Your task to perform on an android device: turn vacation reply on in the gmail app Image 0: 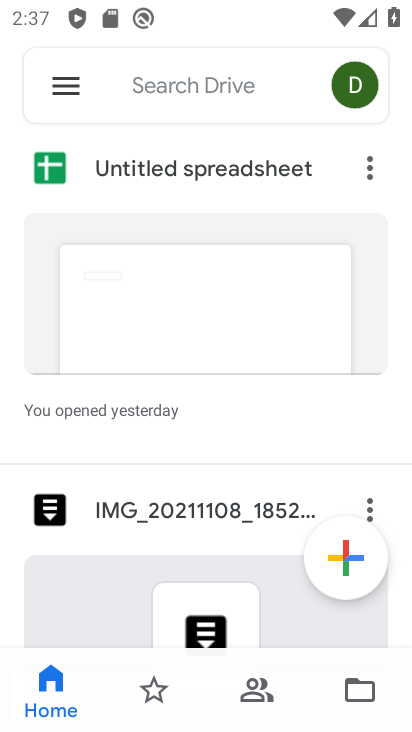
Step 0: press back button
Your task to perform on an android device: turn vacation reply on in the gmail app Image 1: 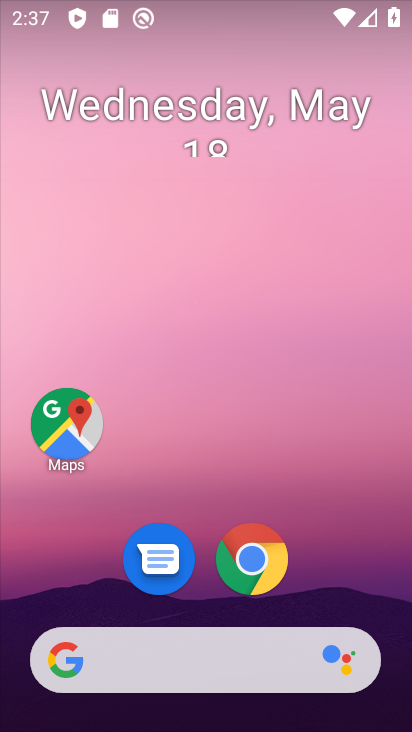
Step 1: drag from (209, 601) to (248, 175)
Your task to perform on an android device: turn vacation reply on in the gmail app Image 2: 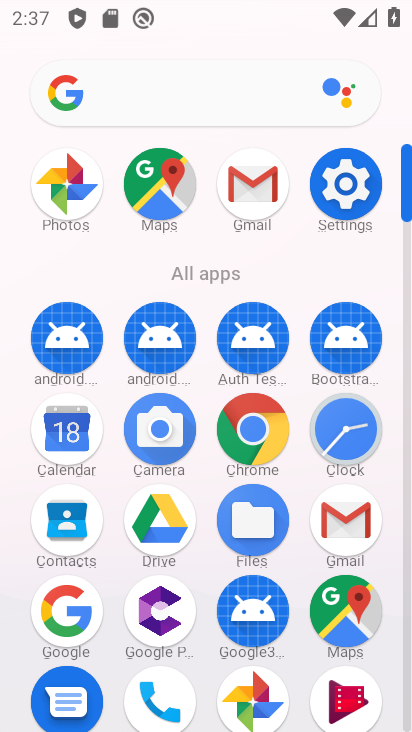
Step 2: click (261, 181)
Your task to perform on an android device: turn vacation reply on in the gmail app Image 3: 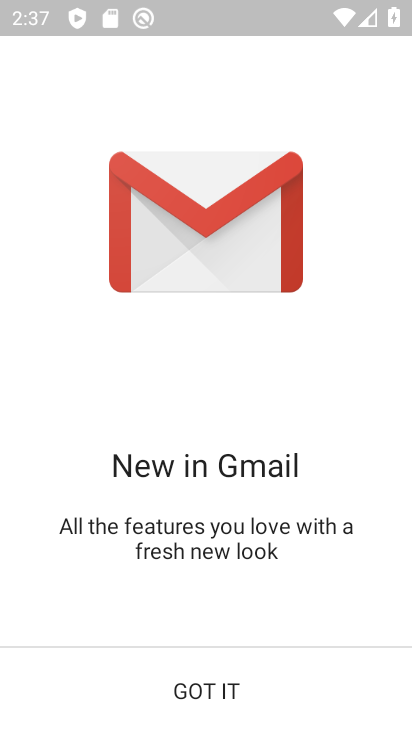
Step 3: click (214, 687)
Your task to perform on an android device: turn vacation reply on in the gmail app Image 4: 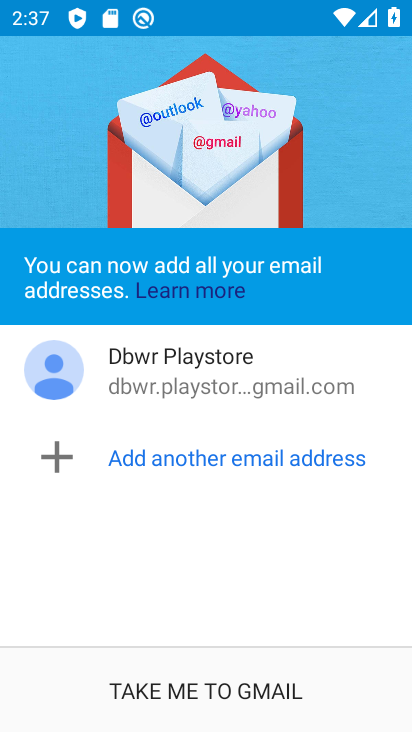
Step 4: click (212, 684)
Your task to perform on an android device: turn vacation reply on in the gmail app Image 5: 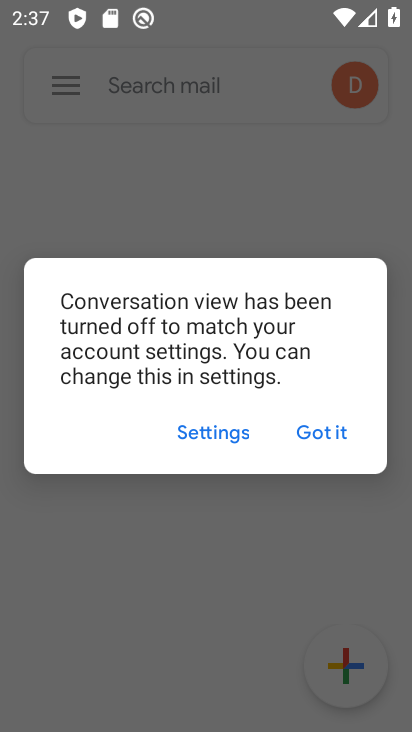
Step 5: click (327, 433)
Your task to perform on an android device: turn vacation reply on in the gmail app Image 6: 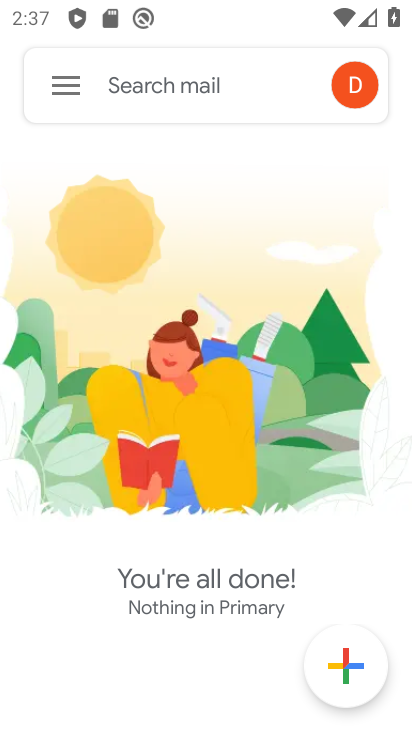
Step 6: click (61, 79)
Your task to perform on an android device: turn vacation reply on in the gmail app Image 7: 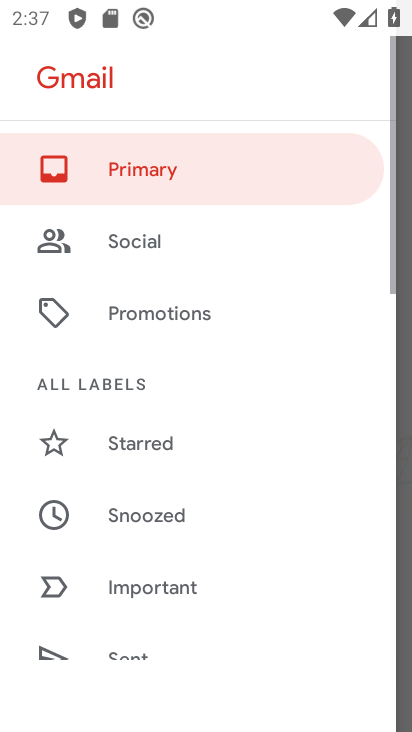
Step 7: drag from (140, 603) to (221, 84)
Your task to perform on an android device: turn vacation reply on in the gmail app Image 8: 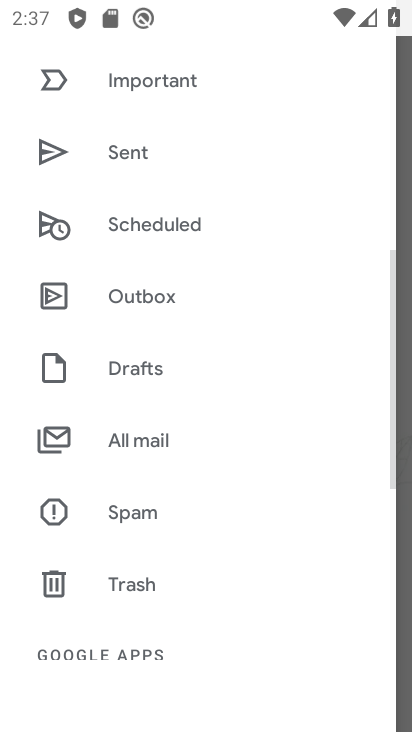
Step 8: drag from (199, 608) to (252, 171)
Your task to perform on an android device: turn vacation reply on in the gmail app Image 9: 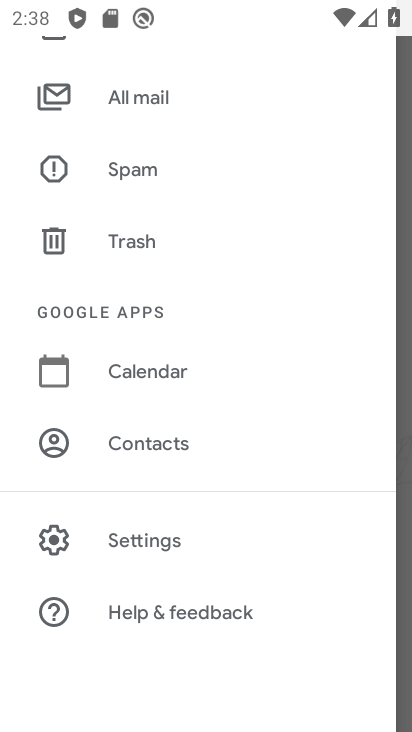
Step 9: click (171, 533)
Your task to perform on an android device: turn vacation reply on in the gmail app Image 10: 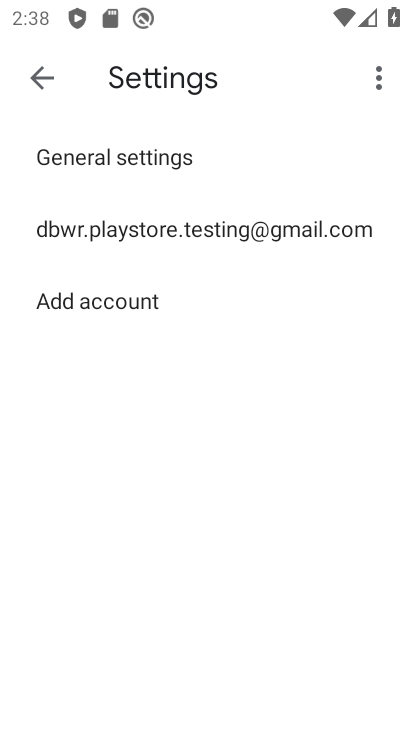
Step 10: click (147, 200)
Your task to perform on an android device: turn vacation reply on in the gmail app Image 11: 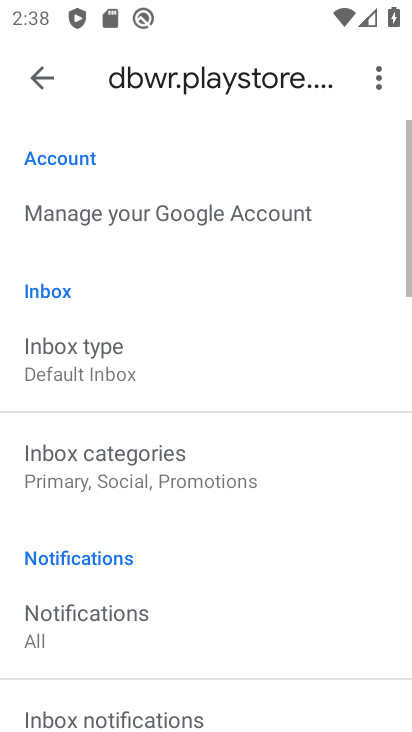
Step 11: drag from (125, 674) to (212, 229)
Your task to perform on an android device: turn vacation reply on in the gmail app Image 12: 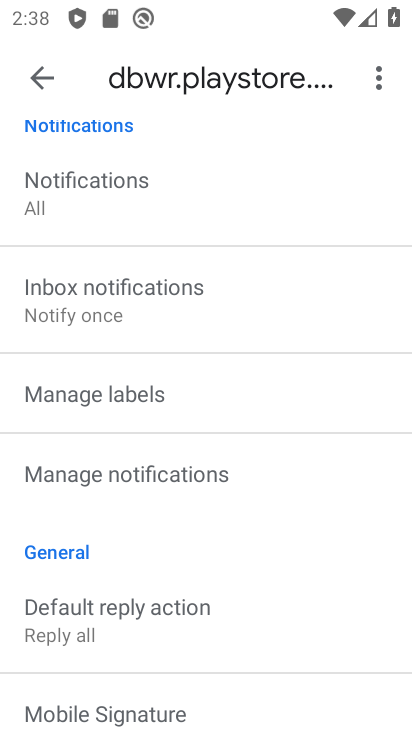
Step 12: drag from (215, 648) to (287, 90)
Your task to perform on an android device: turn vacation reply on in the gmail app Image 13: 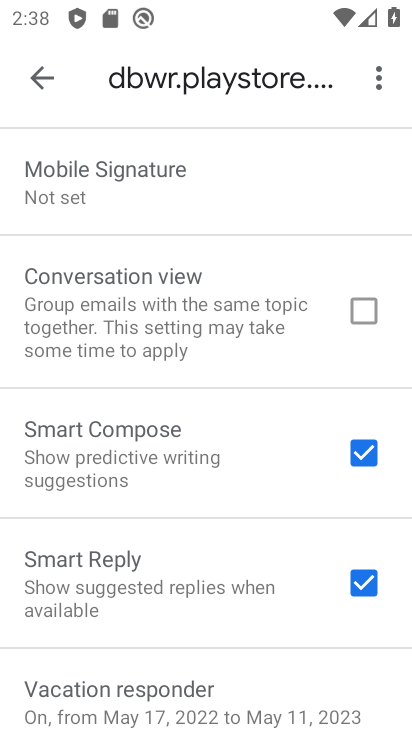
Step 13: drag from (190, 607) to (211, 265)
Your task to perform on an android device: turn vacation reply on in the gmail app Image 14: 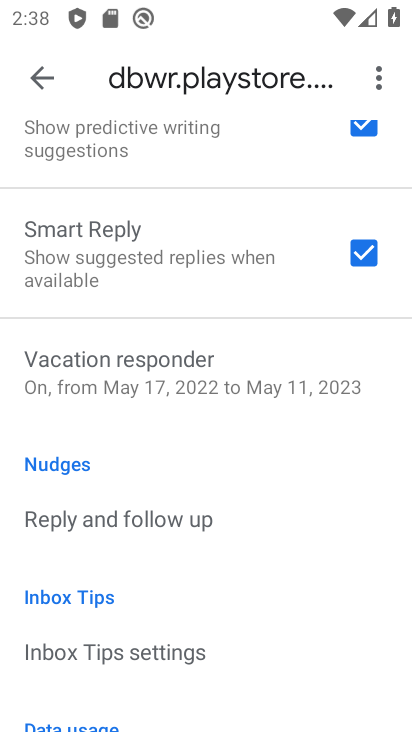
Step 14: click (174, 386)
Your task to perform on an android device: turn vacation reply on in the gmail app Image 15: 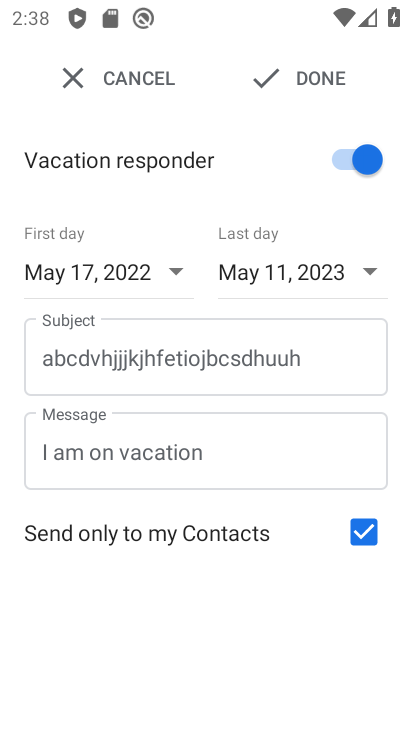
Step 15: task complete